Your task to perform on an android device: Open the stopwatch Image 0: 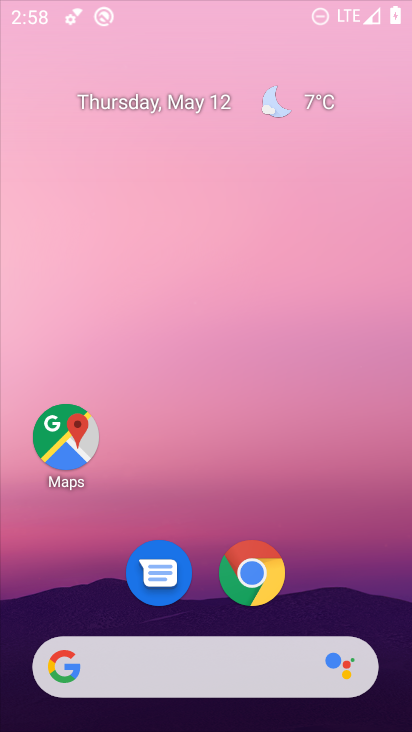
Step 0: click (249, 100)
Your task to perform on an android device: Open the stopwatch Image 1: 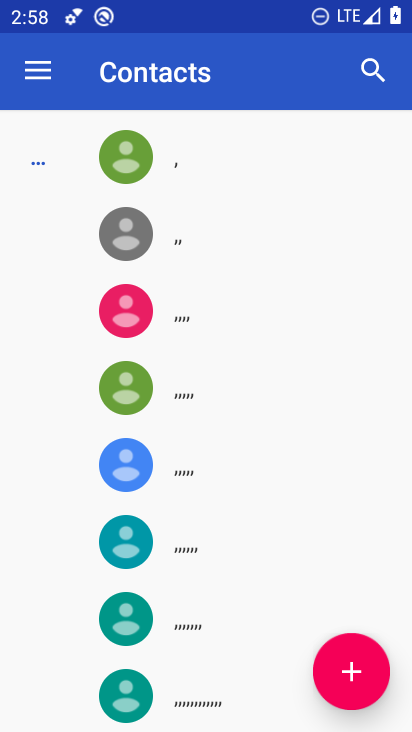
Step 1: press home button
Your task to perform on an android device: Open the stopwatch Image 2: 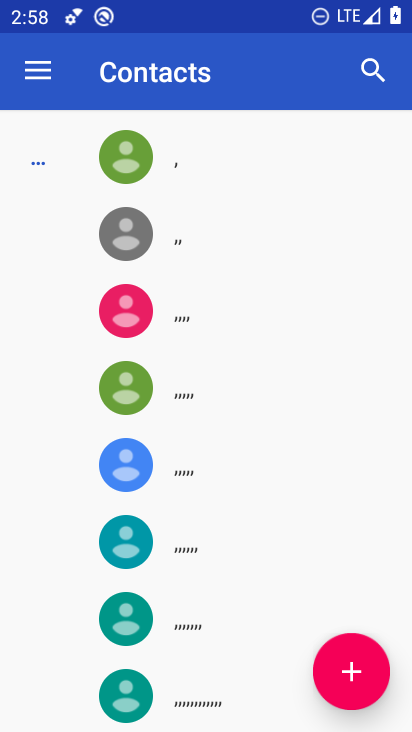
Step 2: press home button
Your task to perform on an android device: Open the stopwatch Image 3: 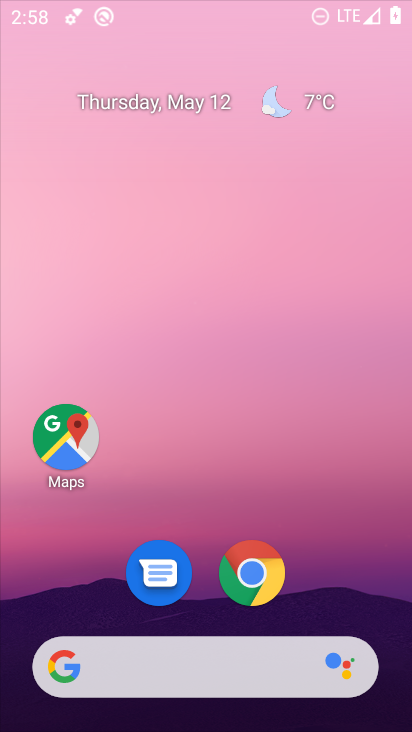
Step 3: press home button
Your task to perform on an android device: Open the stopwatch Image 4: 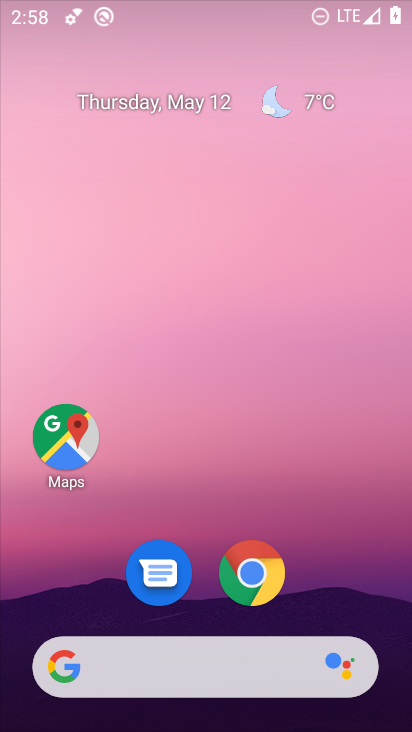
Step 4: press home button
Your task to perform on an android device: Open the stopwatch Image 5: 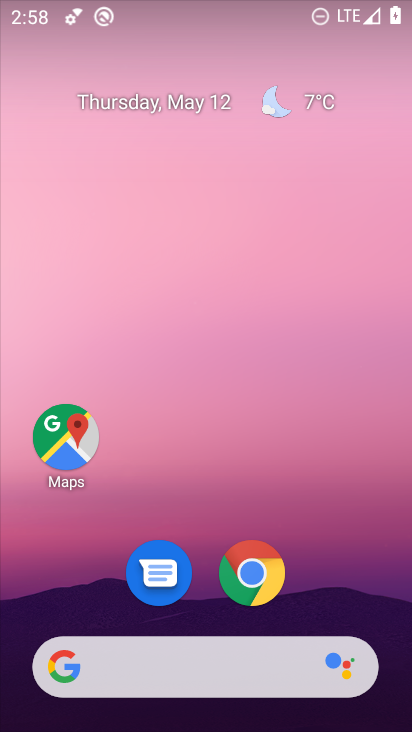
Step 5: press home button
Your task to perform on an android device: Open the stopwatch Image 6: 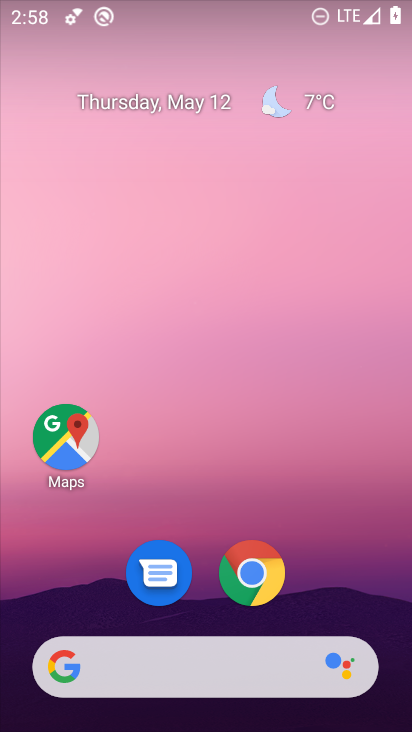
Step 6: drag from (350, 615) to (193, 2)
Your task to perform on an android device: Open the stopwatch Image 7: 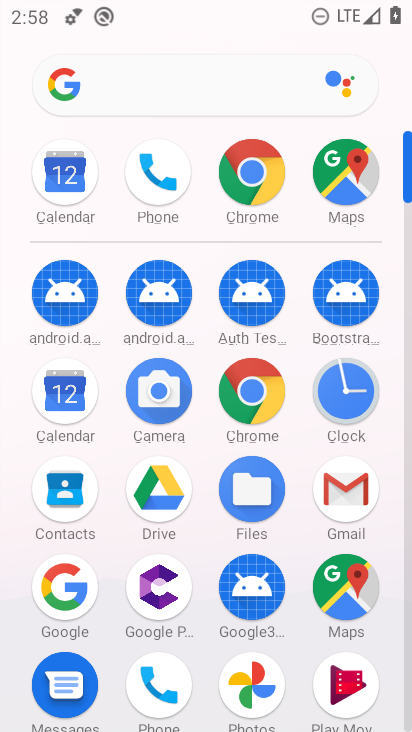
Step 7: click (361, 396)
Your task to perform on an android device: Open the stopwatch Image 8: 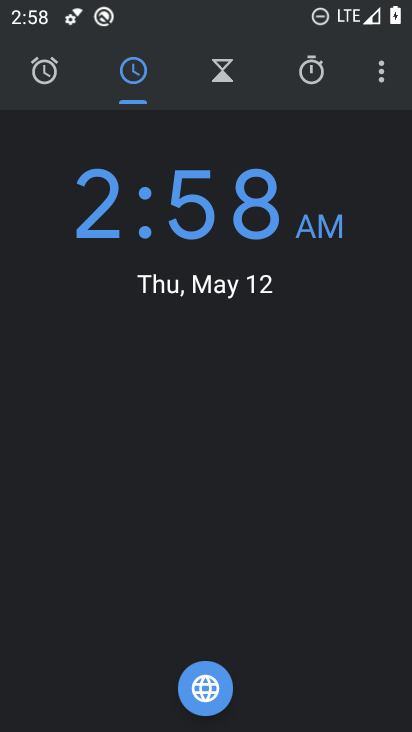
Step 8: click (291, 76)
Your task to perform on an android device: Open the stopwatch Image 9: 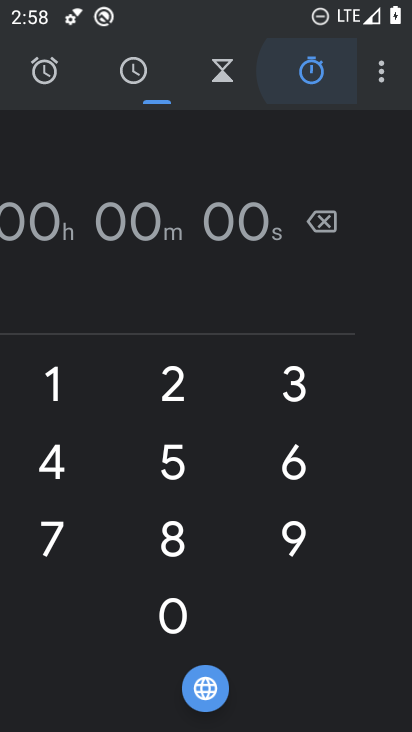
Step 9: click (294, 77)
Your task to perform on an android device: Open the stopwatch Image 10: 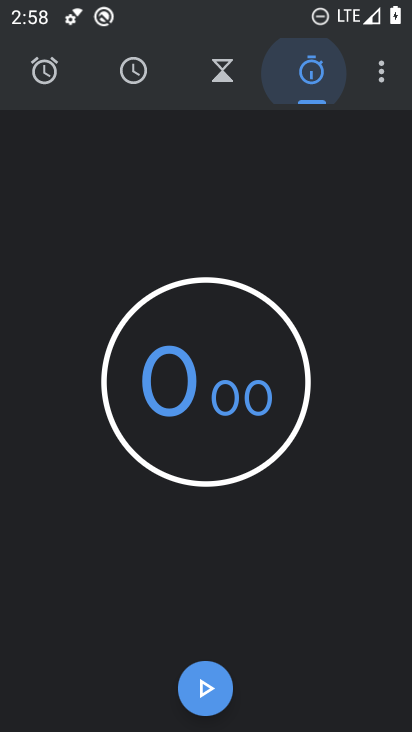
Step 10: click (306, 83)
Your task to perform on an android device: Open the stopwatch Image 11: 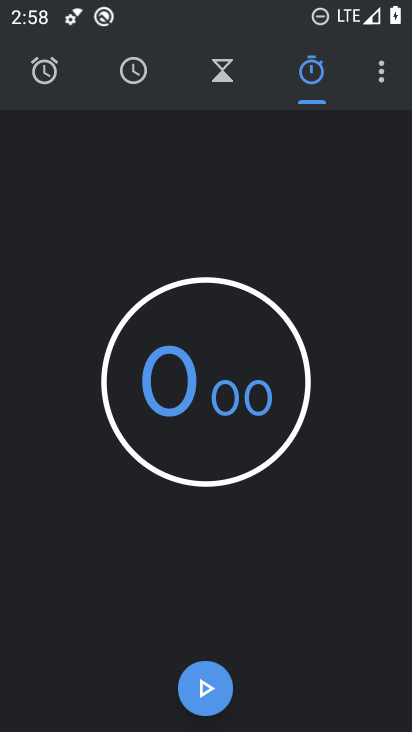
Step 11: click (199, 696)
Your task to perform on an android device: Open the stopwatch Image 12: 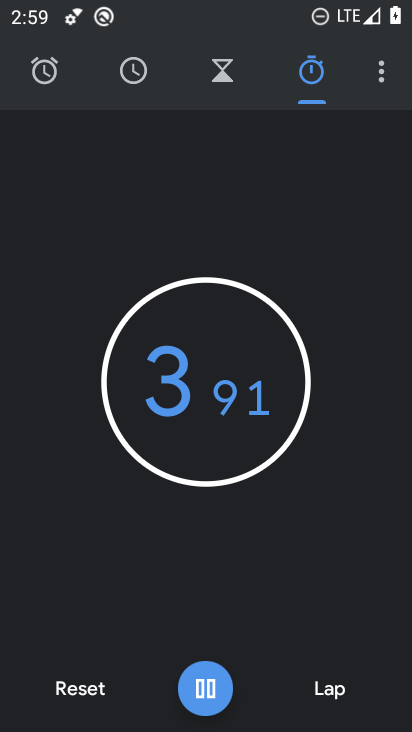
Step 12: click (210, 689)
Your task to perform on an android device: Open the stopwatch Image 13: 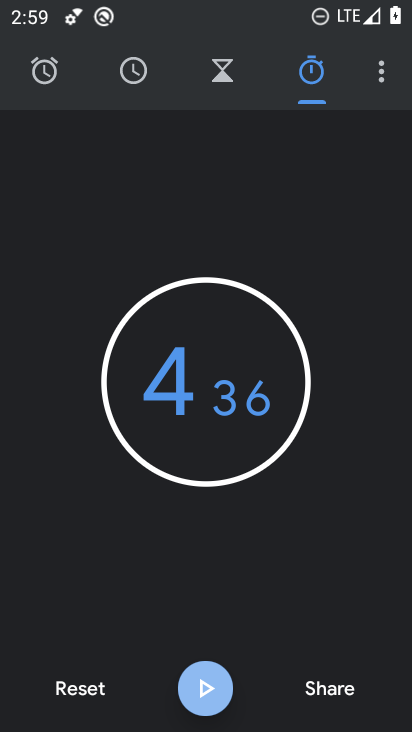
Step 13: click (219, 714)
Your task to perform on an android device: Open the stopwatch Image 14: 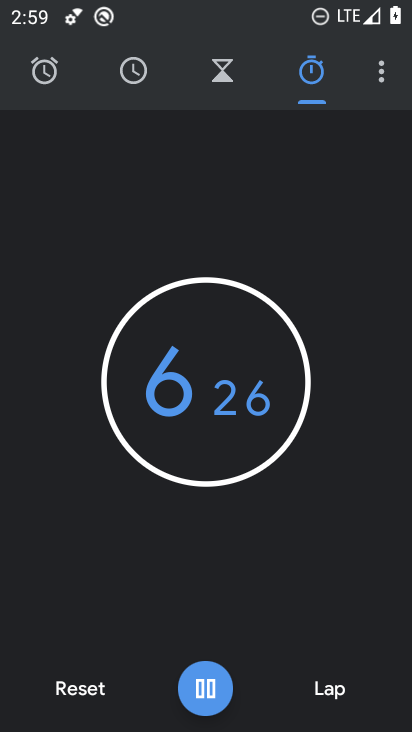
Step 14: click (209, 688)
Your task to perform on an android device: Open the stopwatch Image 15: 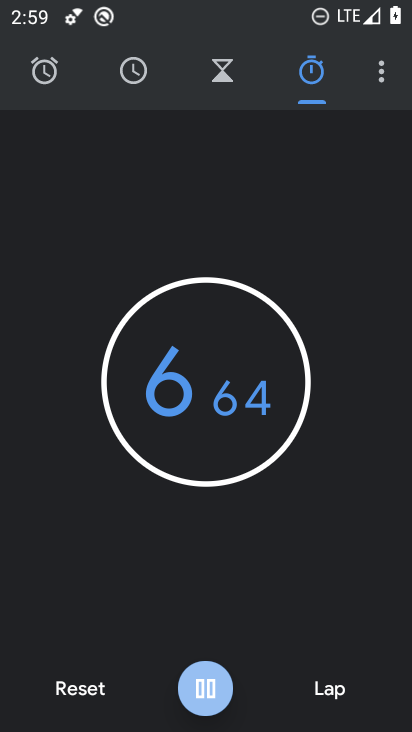
Step 15: click (199, 684)
Your task to perform on an android device: Open the stopwatch Image 16: 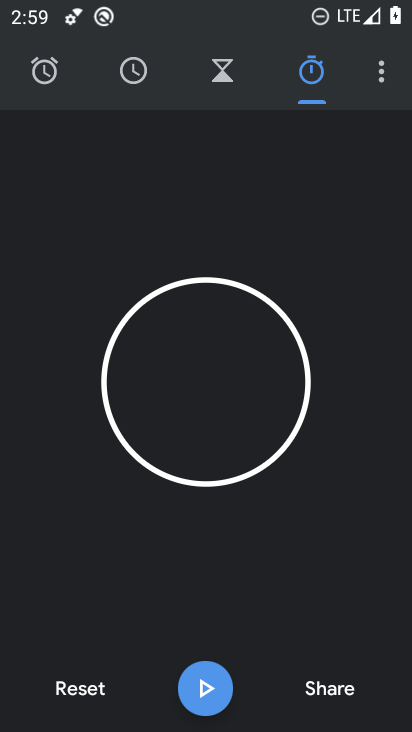
Step 16: click (199, 684)
Your task to perform on an android device: Open the stopwatch Image 17: 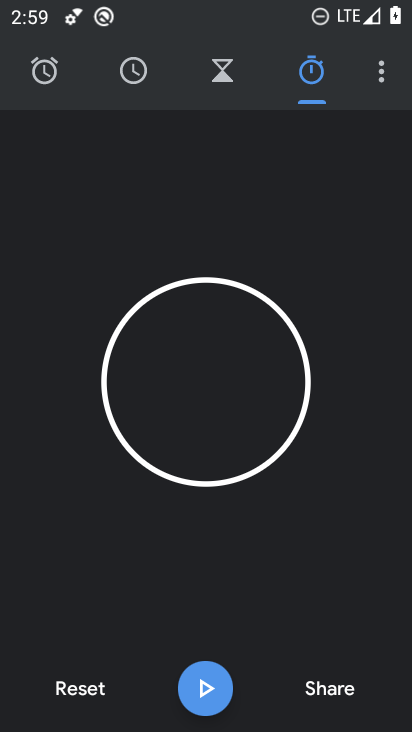
Step 17: task complete